Your task to perform on an android device: Go to notification settings Image 0: 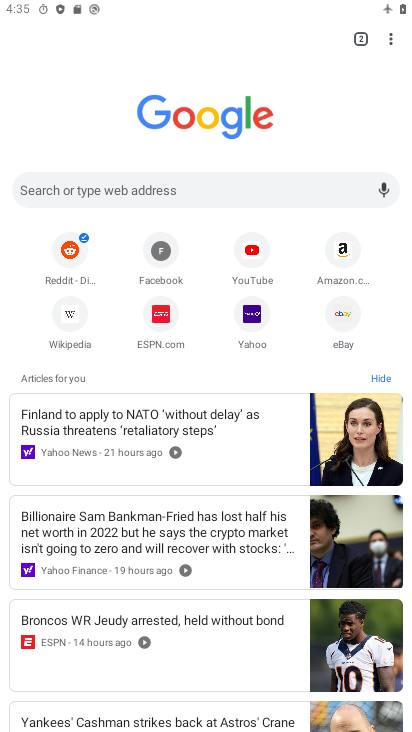
Step 0: press home button
Your task to perform on an android device: Go to notification settings Image 1: 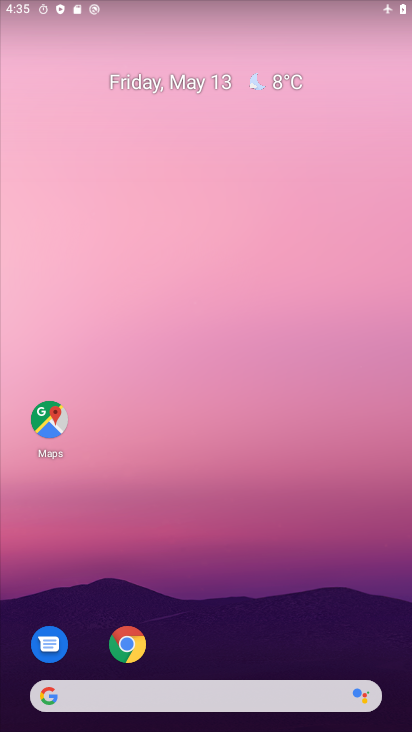
Step 1: drag from (226, 632) to (222, 132)
Your task to perform on an android device: Go to notification settings Image 2: 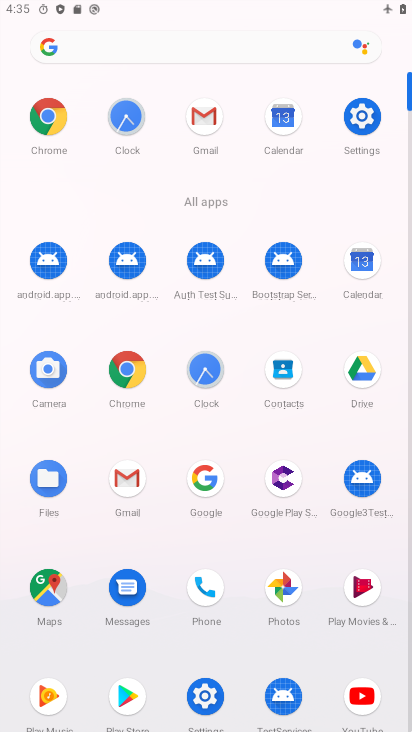
Step 2: click (377, 111)
Your task to perform on an android device: Go to notification settings Image 3: 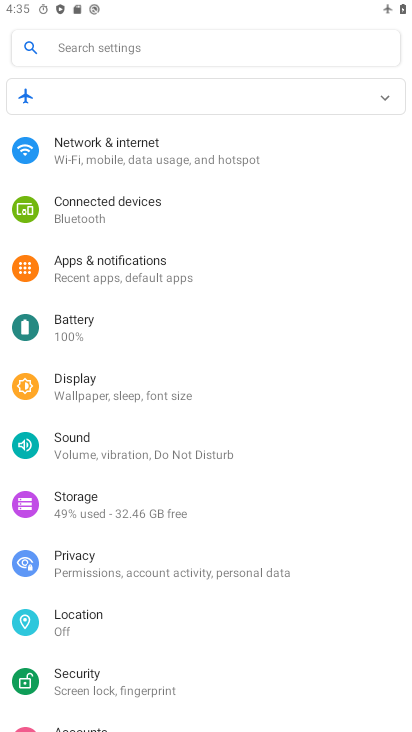
Step 3: click (94, 266)
Your task to perform on an android device: Go to notification settings Image 4: 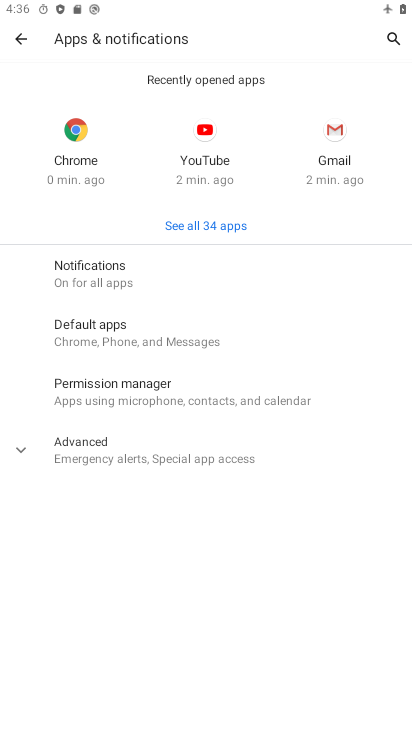
Step 4: task complete